Your task to perform on an android device: Open the phone app and click the voicemail tab. Image 0: 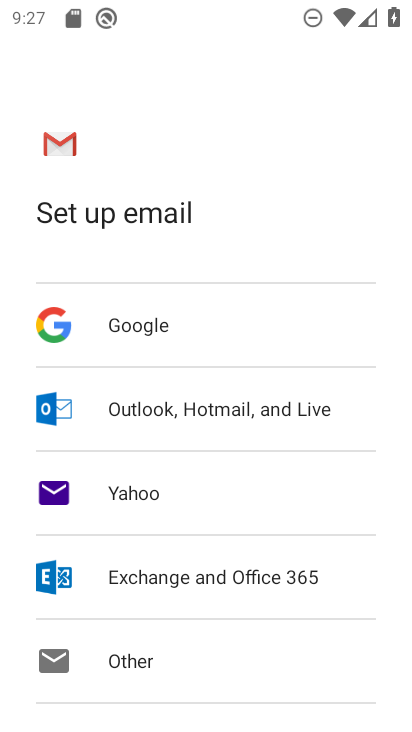
Step 0: press home button
Your task to perform on an android device: Open the phone app and click the voicemail tab. Image 1: 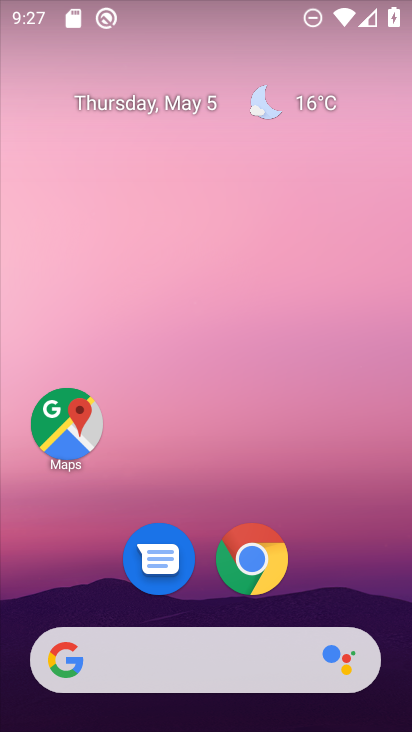
Step 1: drag from (372, 606) to (360, 3)
Your task to perform on an android device: Open the phone app and click the voicemail tab. Image 2: 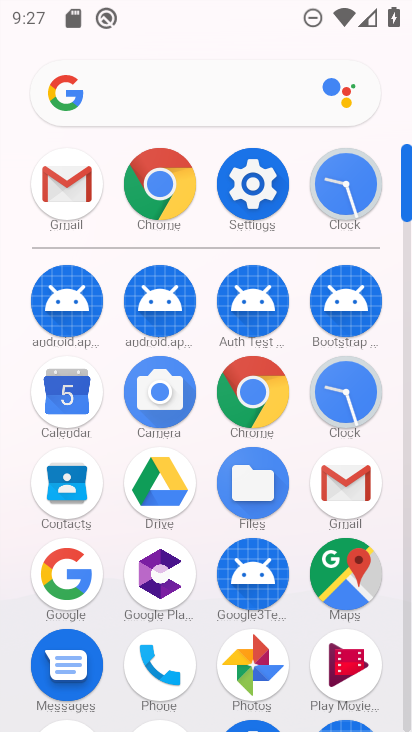
Step 2: click (151, 669)
Your task to perform on an android device: Open the phone app and click the voicemail tab. Image 3: 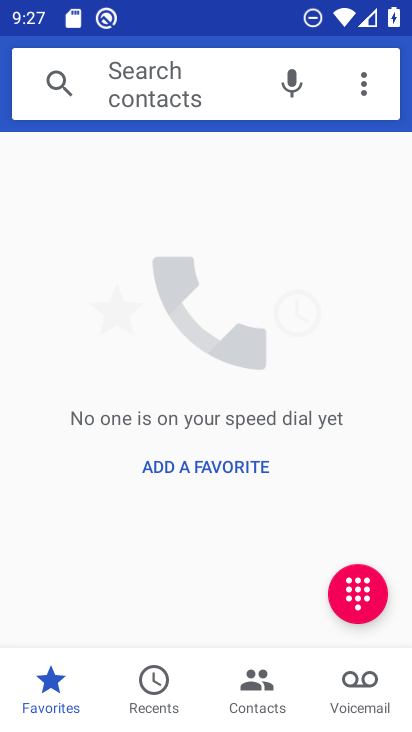
Step 3: click (352, 700)
Your task to perform on an android device: Open the phone app and click the voicemail tab. Image 4: 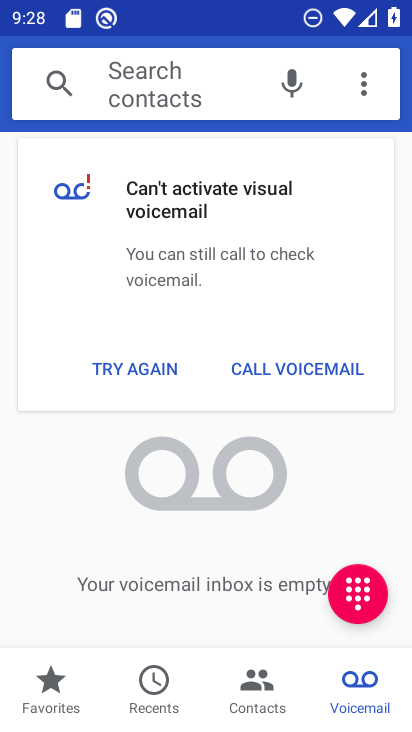
Step 4: task complete